Your task to perform on an android device: choose inbox layout in the gmail app Image 0: 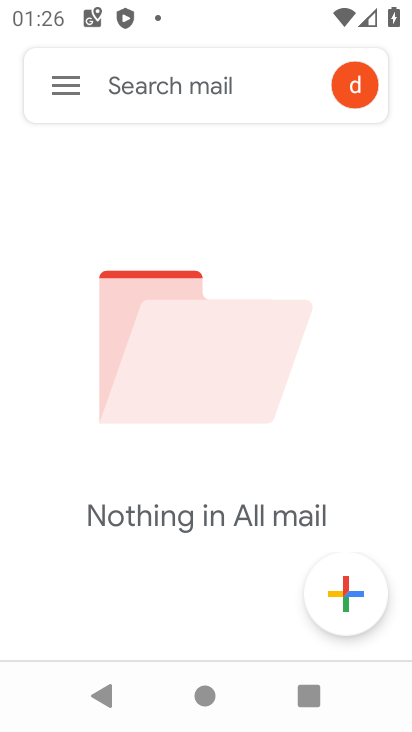
Step 0: click (66, 100)
Your task to perform on an android device: choose inbox layout in the gmail app Image 1: 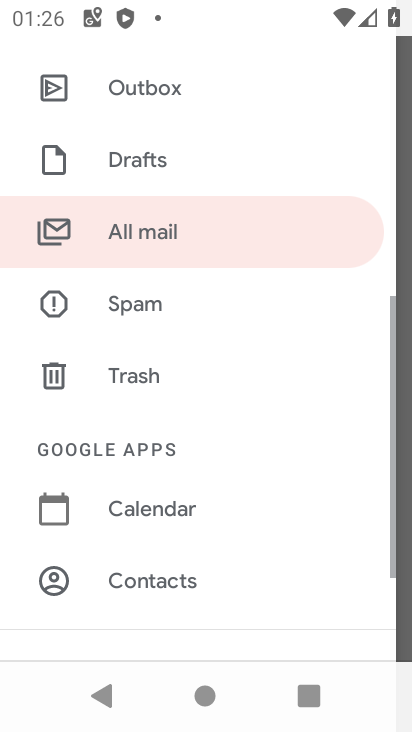
Step 1: drag from (257, 617) to (289, 79)
Your task to perform on an android device: choose inbox layout in the gmail app Image 2: 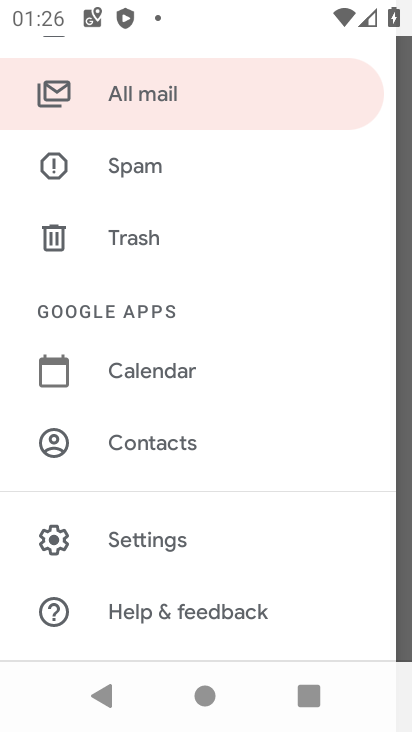
Step 2: click (162, 546)
Your task to perform on an android device: choose inbox layout in the gmail app Image 3: 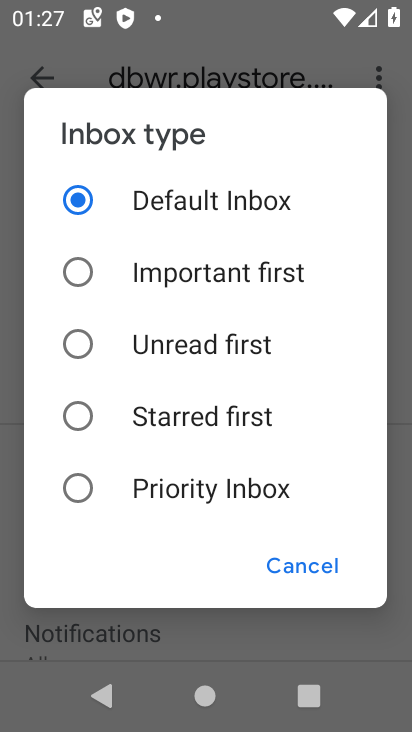
Step 3: task complete